Your task to perform on an android device: Open Chrome and go to the settings page Image 0: 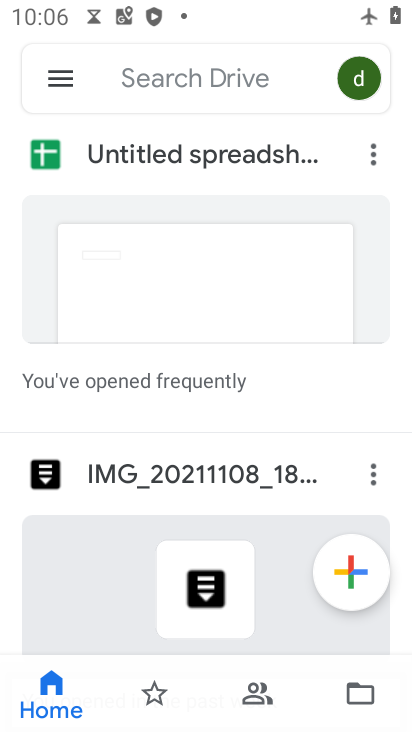
Step 0: press home button
Your task to perform on an android device: Open Chrome and go to the settings page Image 1: 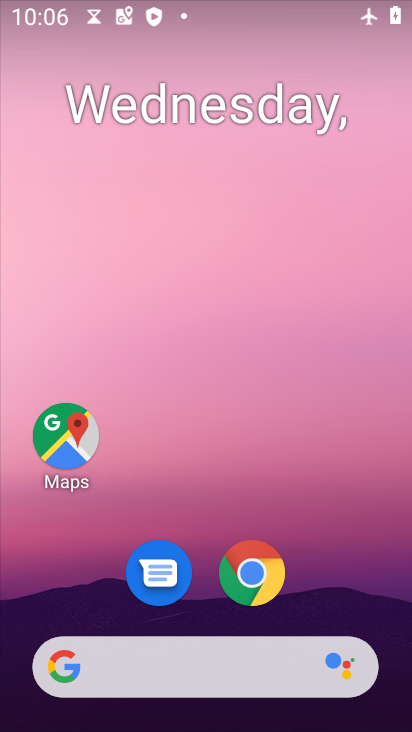
Step 1: click (260, 568)
Your task to perform on an android device: Open Chrome and go to the settings page Image 2: 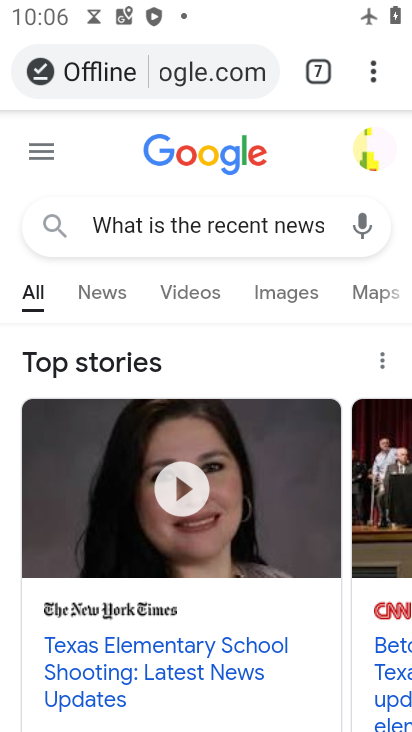
Step 2: click (376, 71)
Your task to perform on an android device: Open Chrome and go to the settings page Image 3: 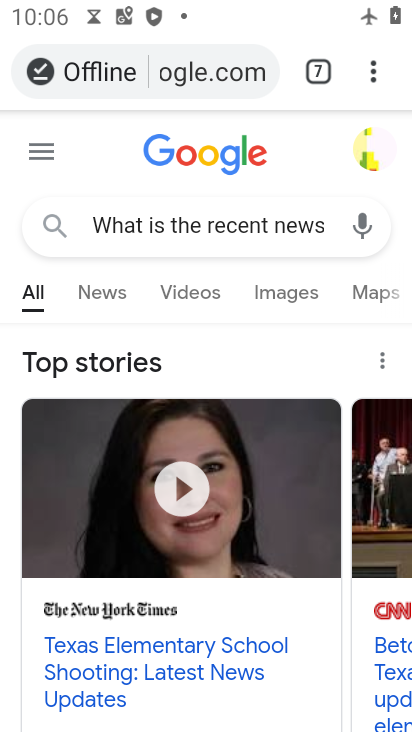
Step 3: click (377, 65)
Your task to perform on an android device: Open Chrome and go to the settings page Image 4: 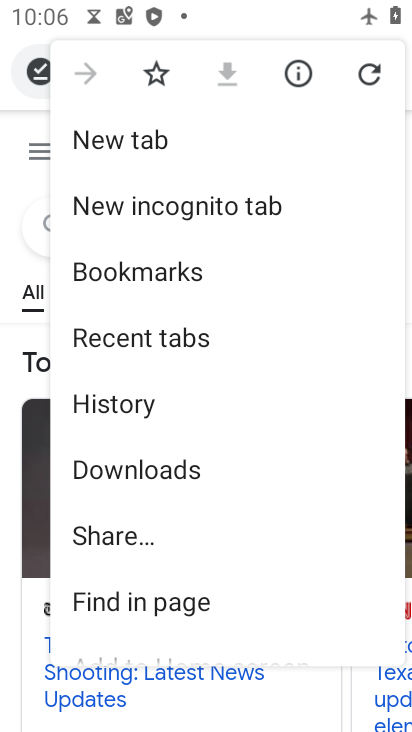
Step 4: drag from (219, 550) to (254, 138)
Your task to perform on an android device: Open Chrome and go to the settings page Image 5: 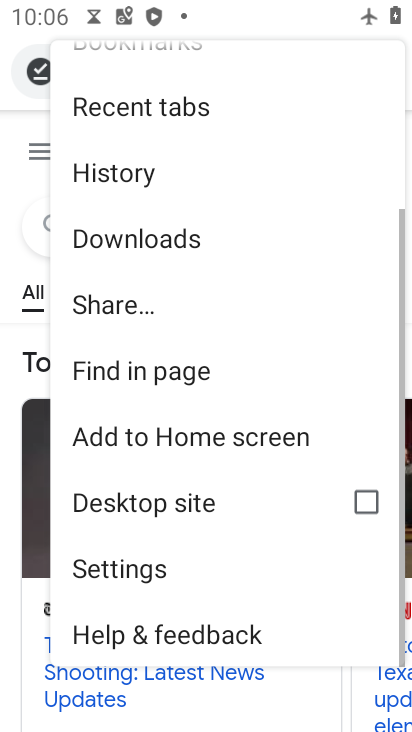
Step 5: click (163, 561)
Your task to perform on an android device: Open Chrome and go to the settings page Image 6: 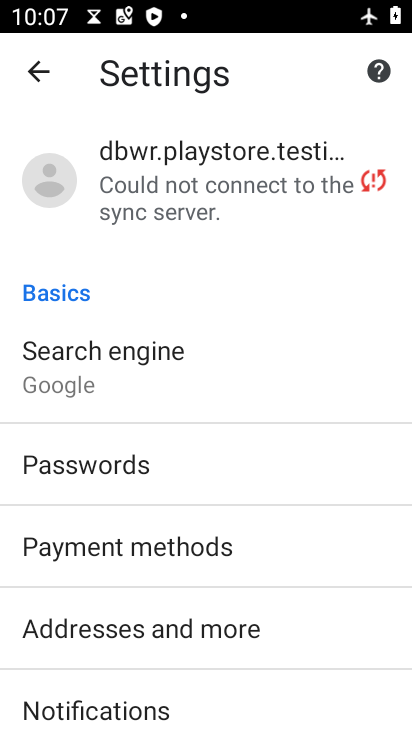
Step 6: task complete